Your task to perform on an android device: Do I have any events tomorrow? Image 0: 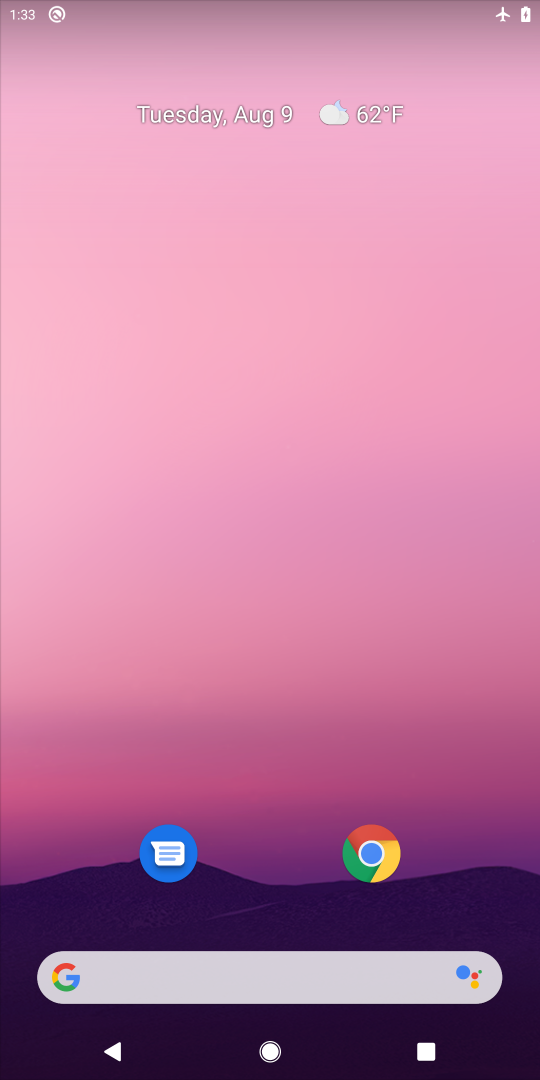
Step 0: press home button
Your task to perform on an android device: Do I have any events tomorrow? Image 1: 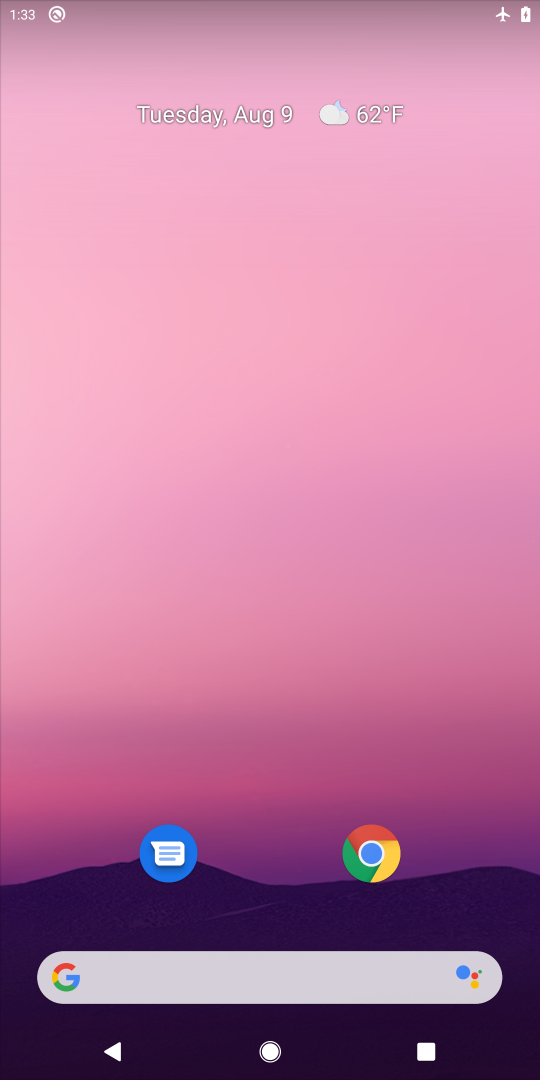
Step 1: drag from (291, 725) to (357, 165)
Your task to perform on an android device: Do I have any events tomorrow? Image 2: 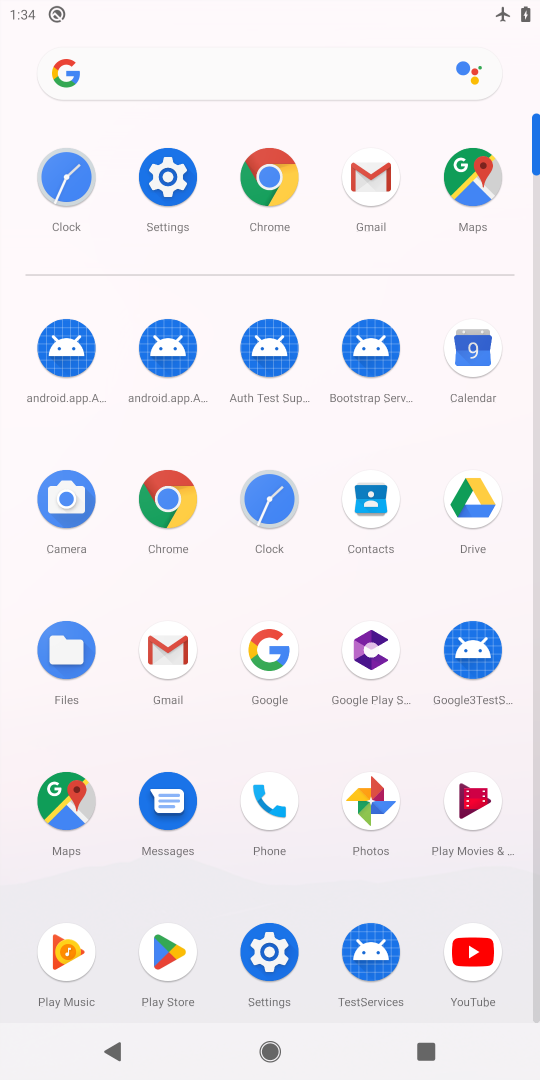
Step 2: click (482, 347)
Your task to perform on an android device: Do I have any events tomorrow? Image 3: 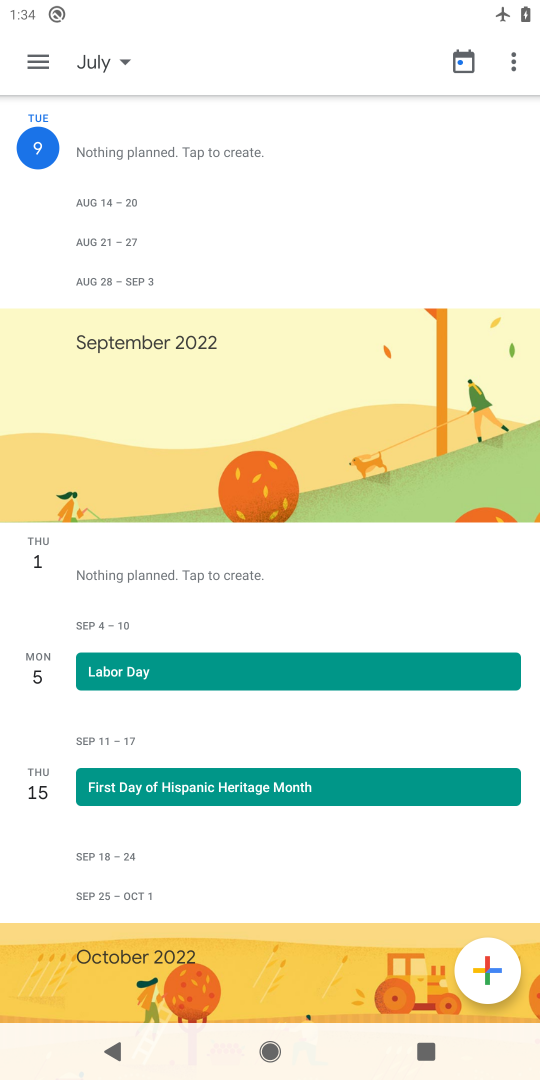
Step 3: click (39, 63)
Your task to perform on an android device: Do I have any events tomorrow? Image 4: 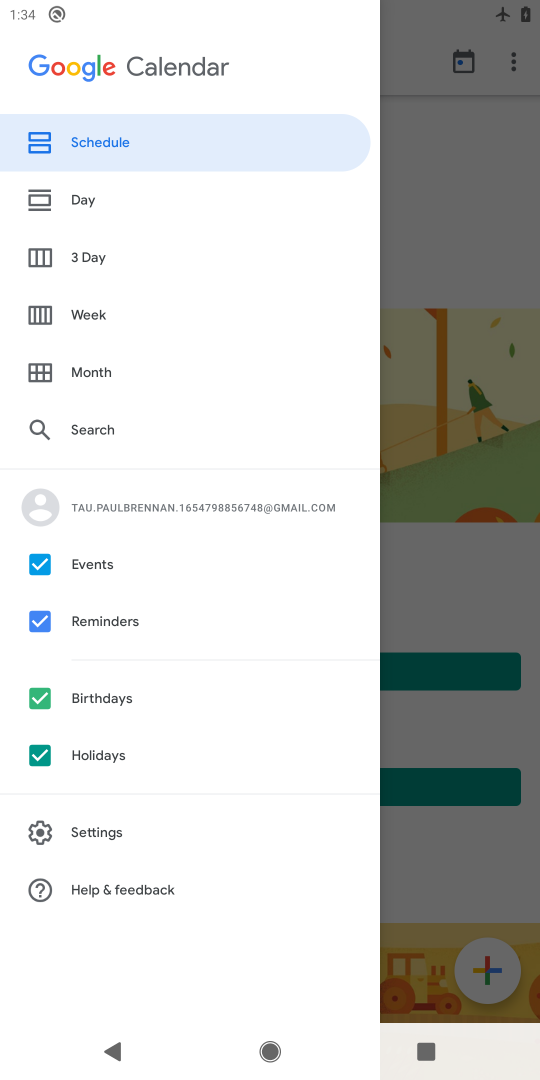
Step 4: click (113, 205)
Your task to perform on an android device: Do I have any events tomorrow? Image 5: 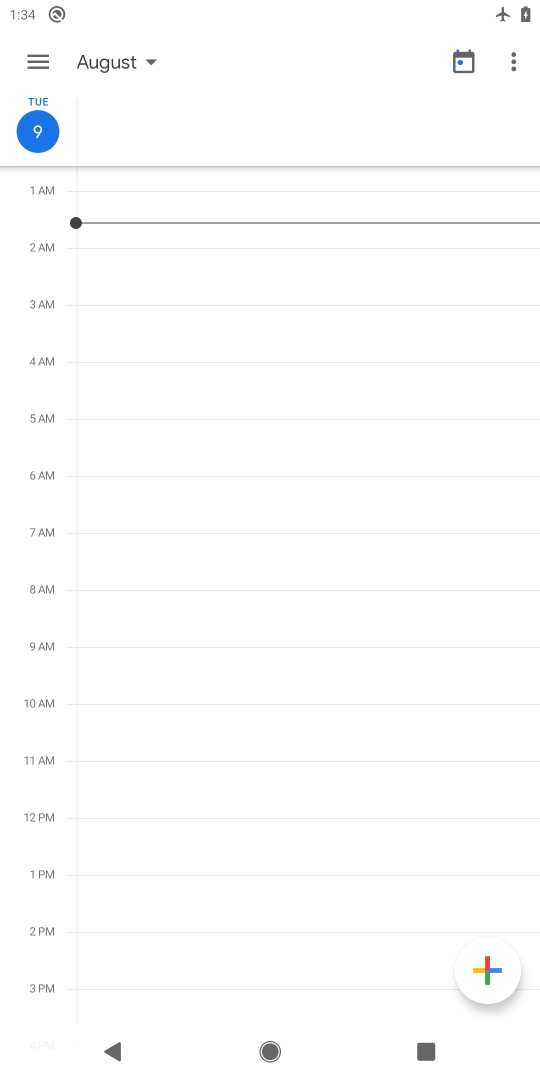
Step 5: task complete